Your task to perform on an android device: Open Reddit.com Image 0: 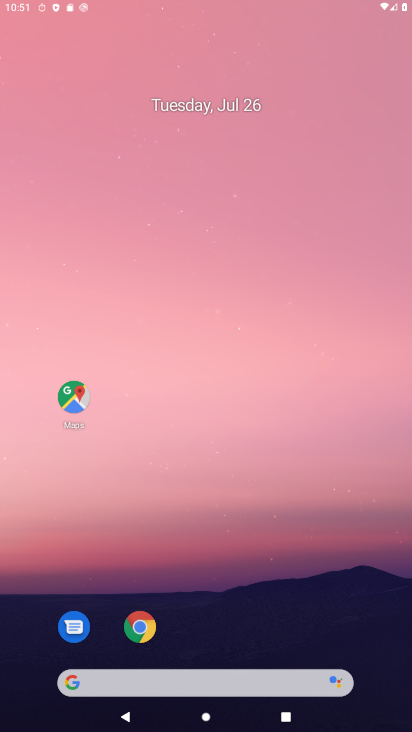
Step 0: drag from (223, 111) to (272, 11)
Your task to perform on an android device: Open Reddit.com Image 1: 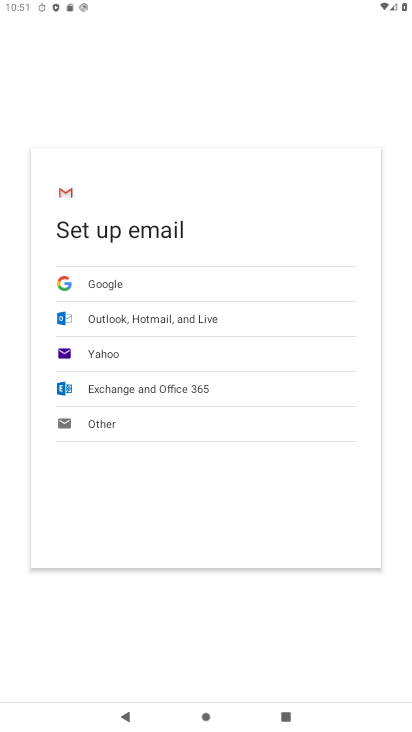
Step 1: press home button
Your task to perform on an android device: Open Reddit.com Image 2: 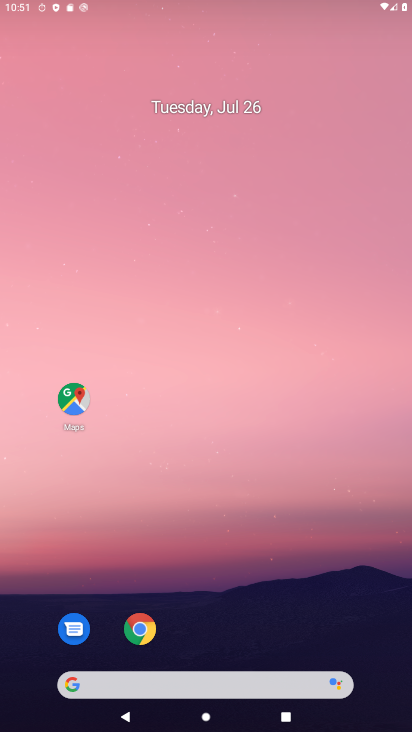
Step 2: drag from (386, 651) to (200, 91)
Your task to perform on an android device: Open Reddit.com Image 3: 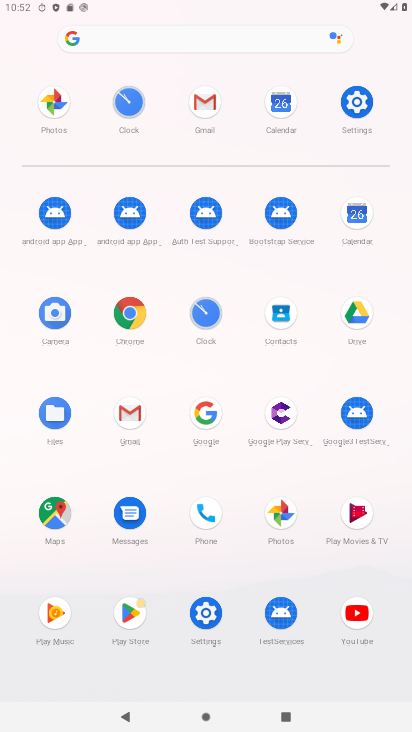
Step 3: click (202, 403)
Your task to perform on an android device: Open Reddit.com Image 4: 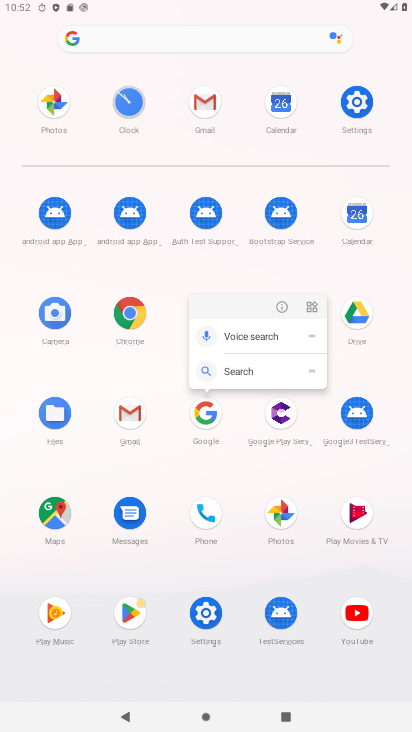
Step 4: click (202, 411)
Your task to perform on an android device: Open Reddit.com Image 5: 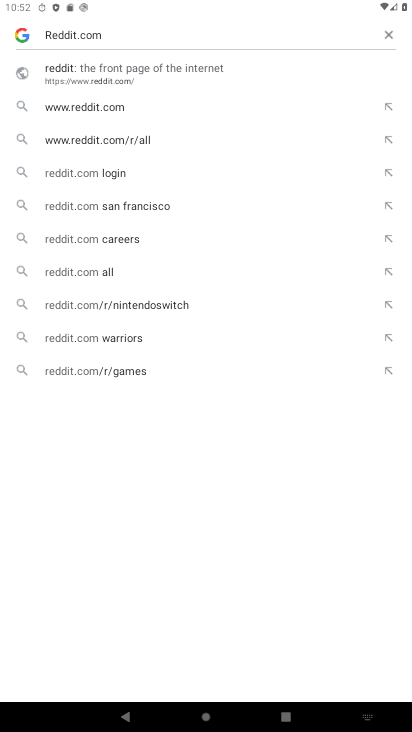
Step 5: click (377, 34)
Your task to perform on an android device: Open Reddit.com Image 6: 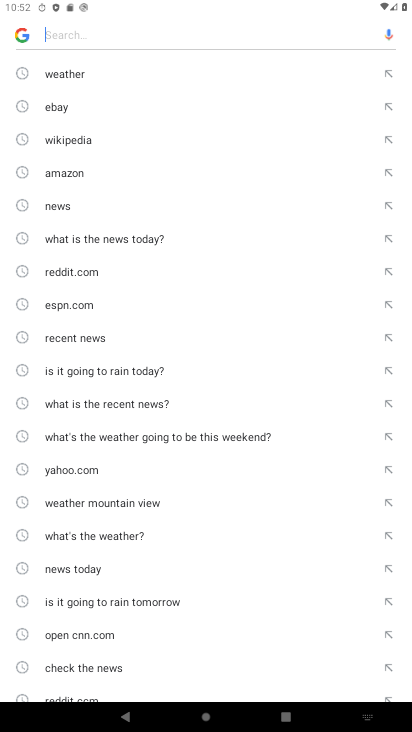
Step 6: type "Reddit.com"
Your task to perform on an android device: Open Reddit.com Image 7: 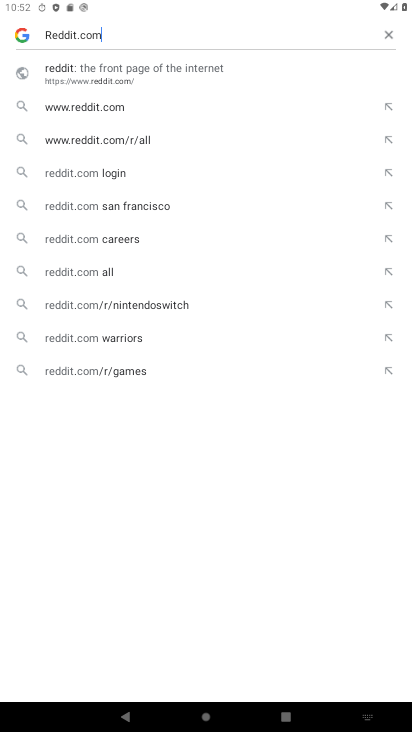
Step 7: click (95, 58)
Your task to perform on an android device: Open Reddit.com Image 8: 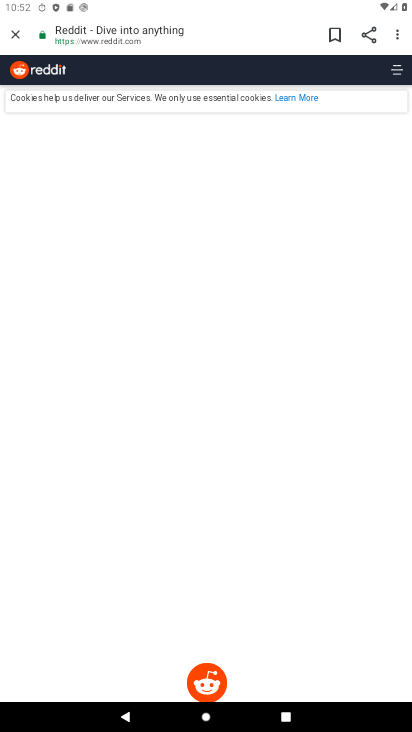
Step 8: task complete